Your task to perform on an android device: What's the weather today? Image 0: 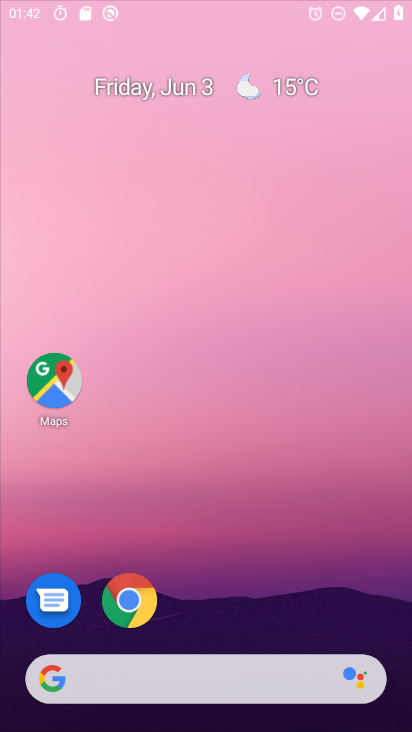
Step 0: click (233, 73)
Your task to perform on an android device: What's the weather today? Image 1: 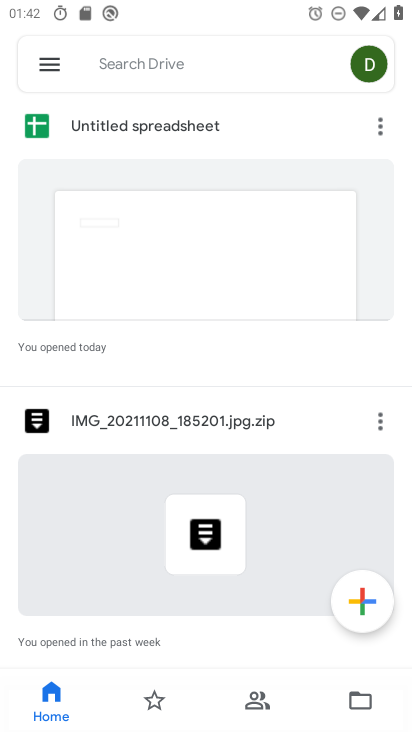
Step 1: press home button
Your task to perform on an android device: What's the weather today? Image 2: 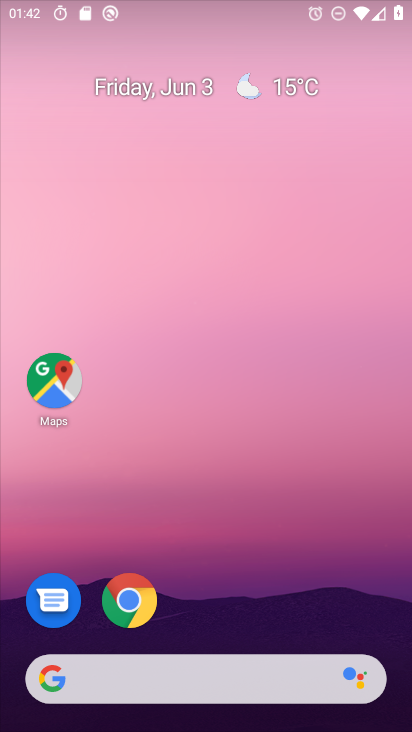
Step 2: drag from (223, 595) to (251, 68)
Your task to perform on an android device: What's the weather today? Image 3: 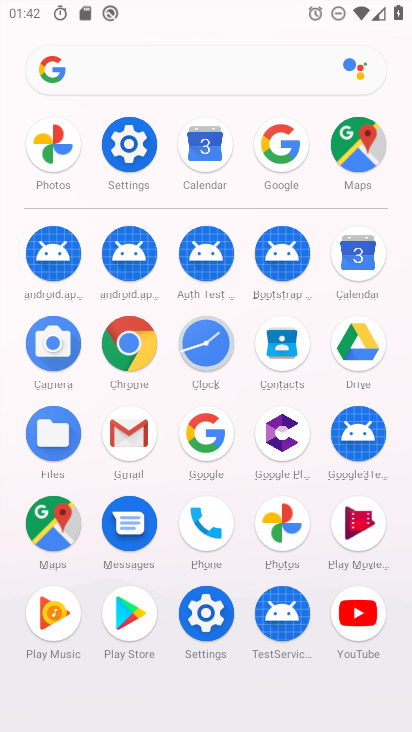
Step 3: click (206, 434)
Your task to perform on an android device: What's the weather today? Image 4: 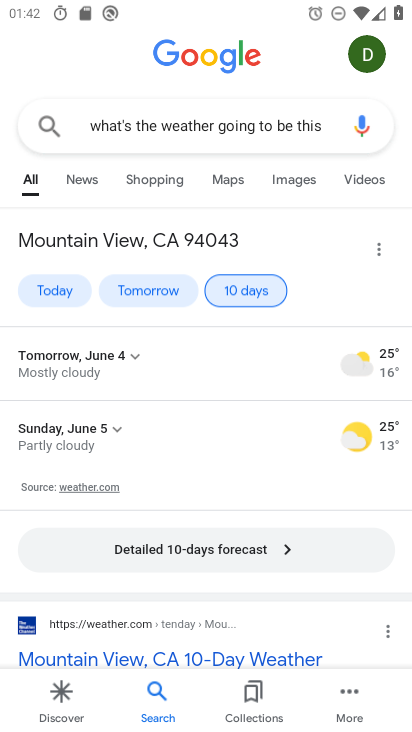
Step 4: click (250, 131)
Your task to perform on an android device: What's the weather today? Image 5: 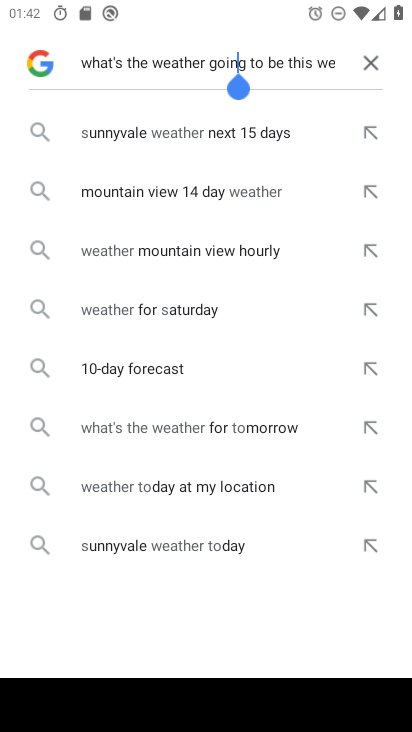
Step 5: click (358, 68)
Your task to perform on an android device: What's the weather today? Image 6: 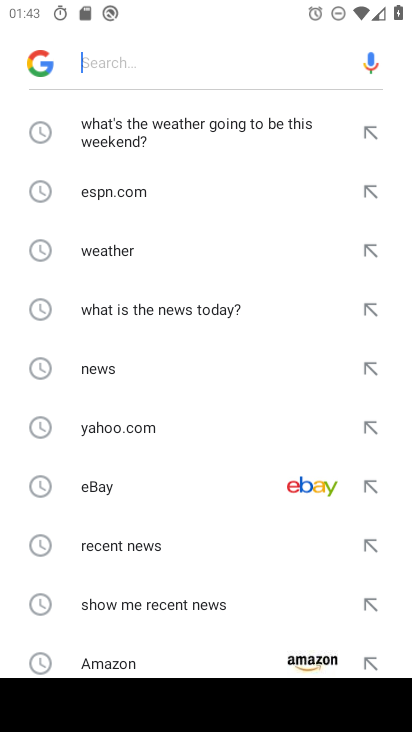
Step 6: click (138, 244)
Your task to perform on an android device: What's the weather today? Image 7: 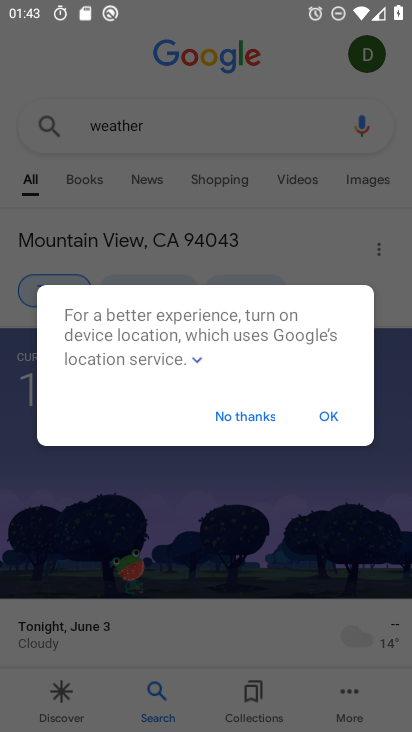
Step 7: click (265, 414)
Your task to perform on an android device: What's the weather today? Image 8: 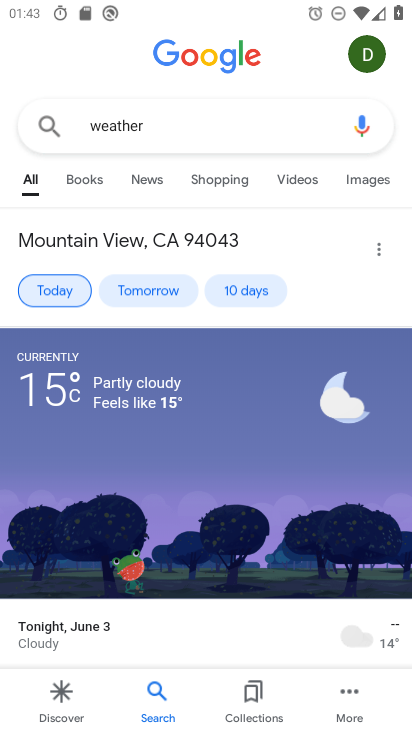
Step 8: task complete